Your task to perform on an android device: turn off translation in the chrome app Image 0: 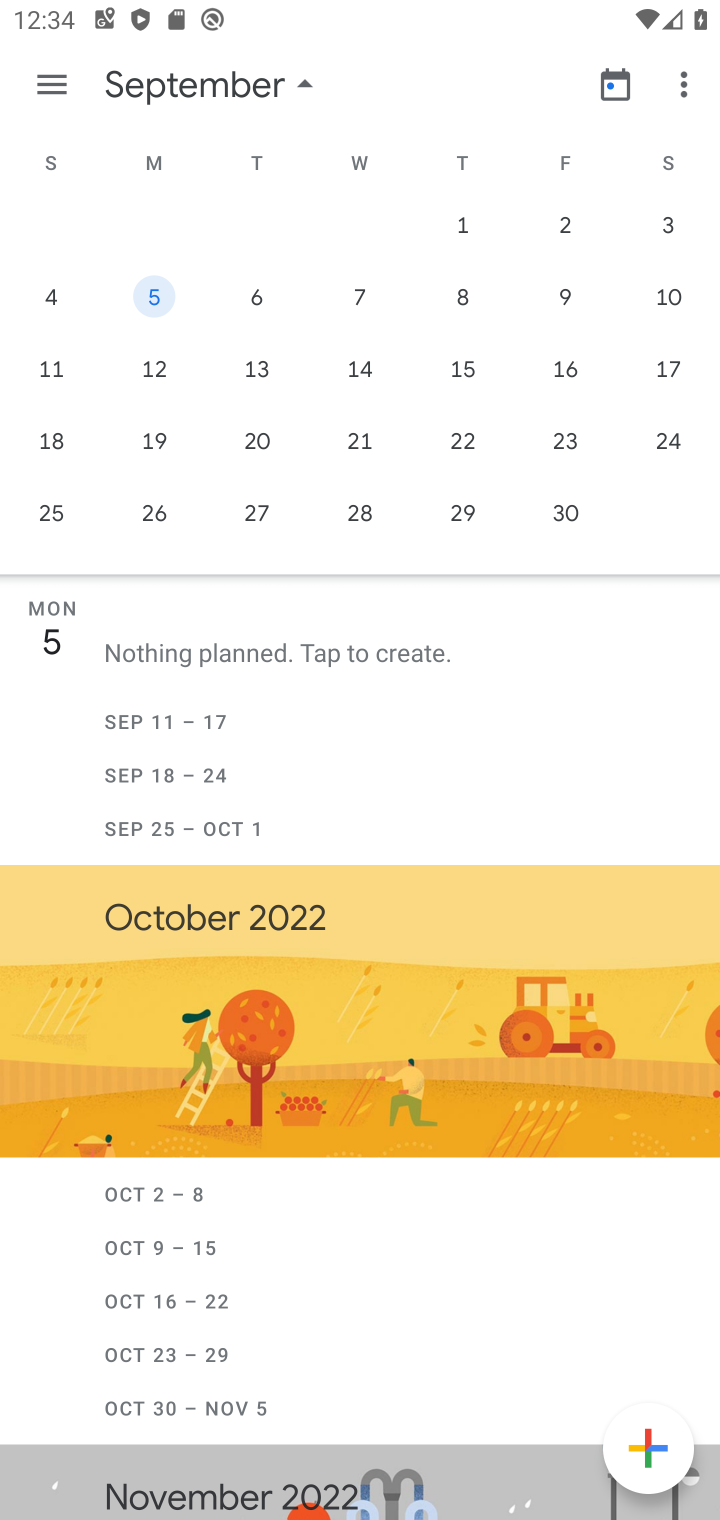
Step 0: press back button
Your task to perform on an android device: turn off translation in the chrome app Image 1: 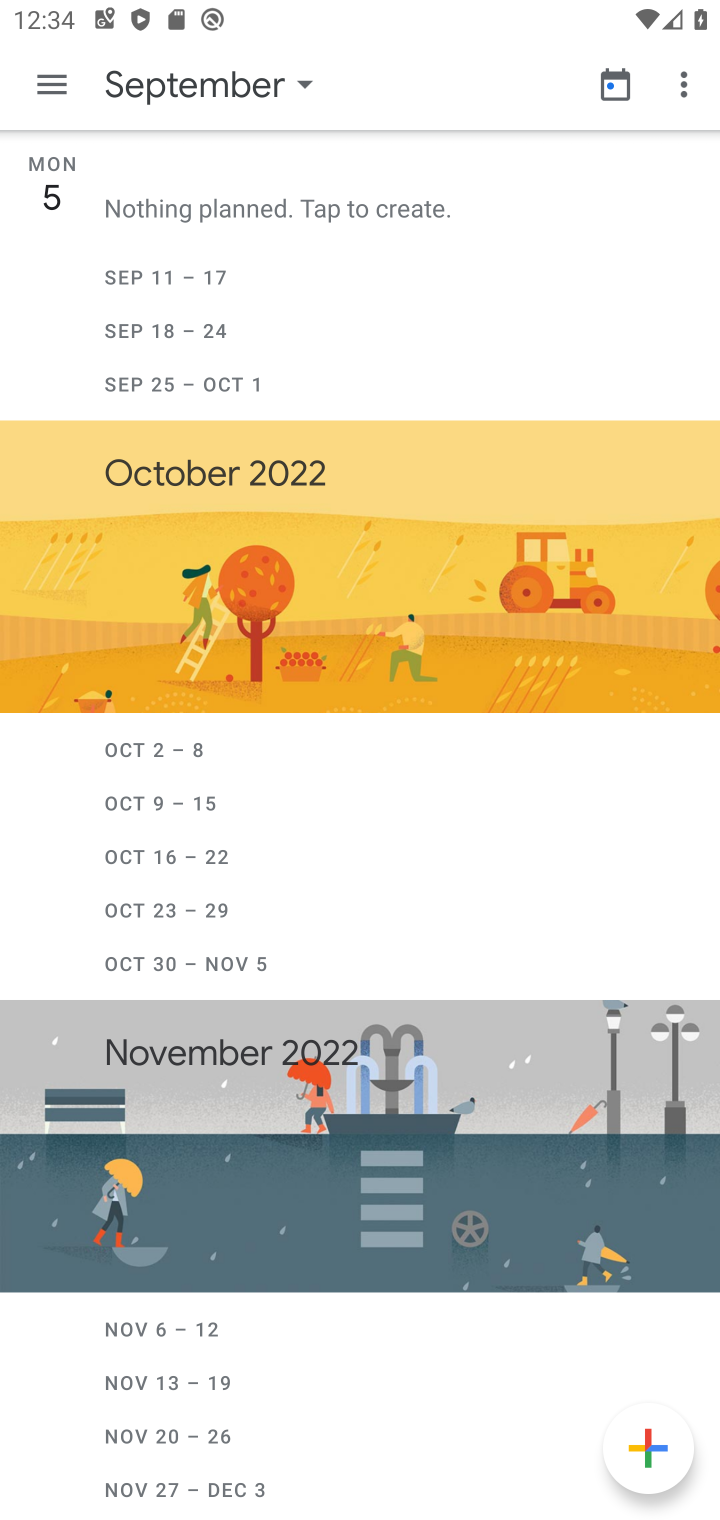
Step 1: press back button
Your task to perform on an android device: turn off translation in the chrome app Image 2: 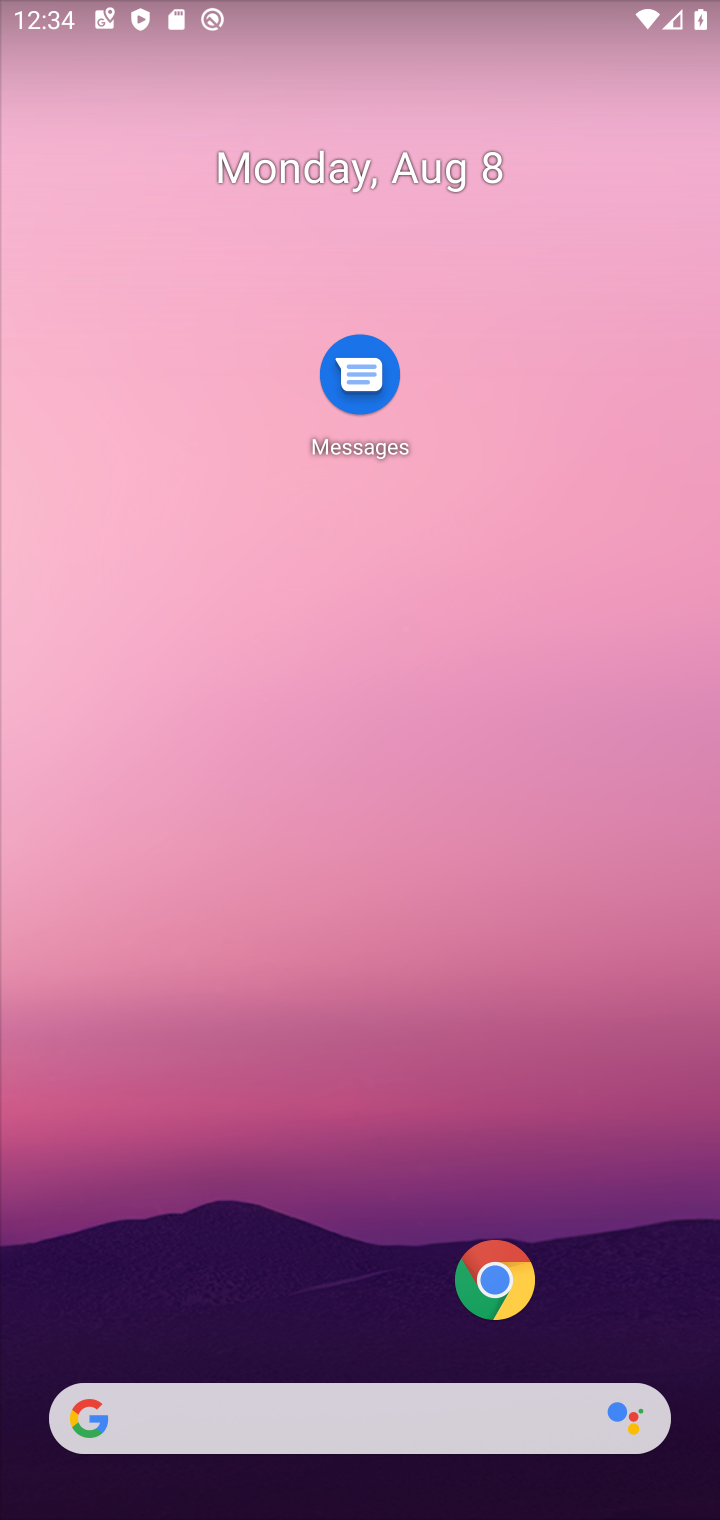
Step 2: click (493, 1295)
Your task to perform on an android device: turn off translation in the chrome app Image 3: 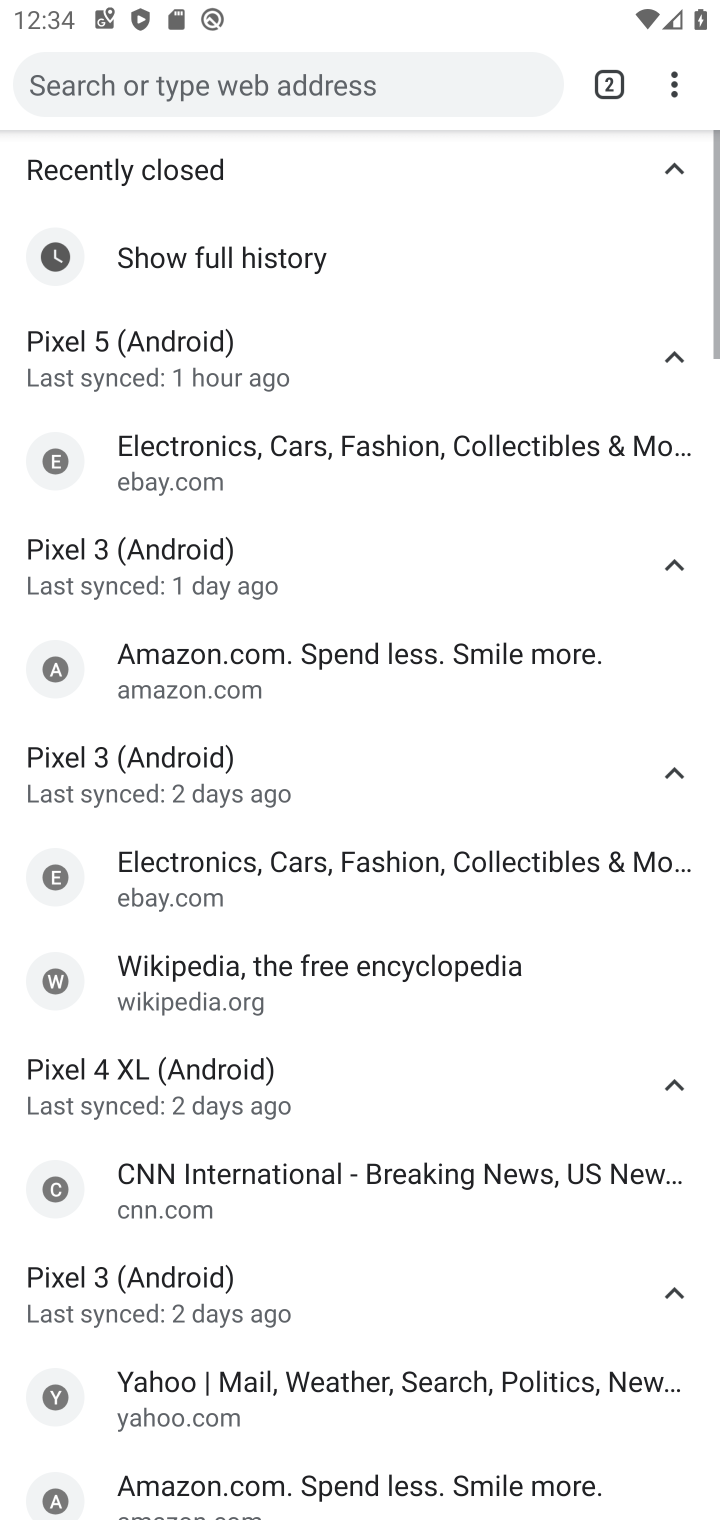
Step 3: drag from (659, 78) to (399, 708)
Your task to perform on an android device: turn off translation in the chrome app Image 4: 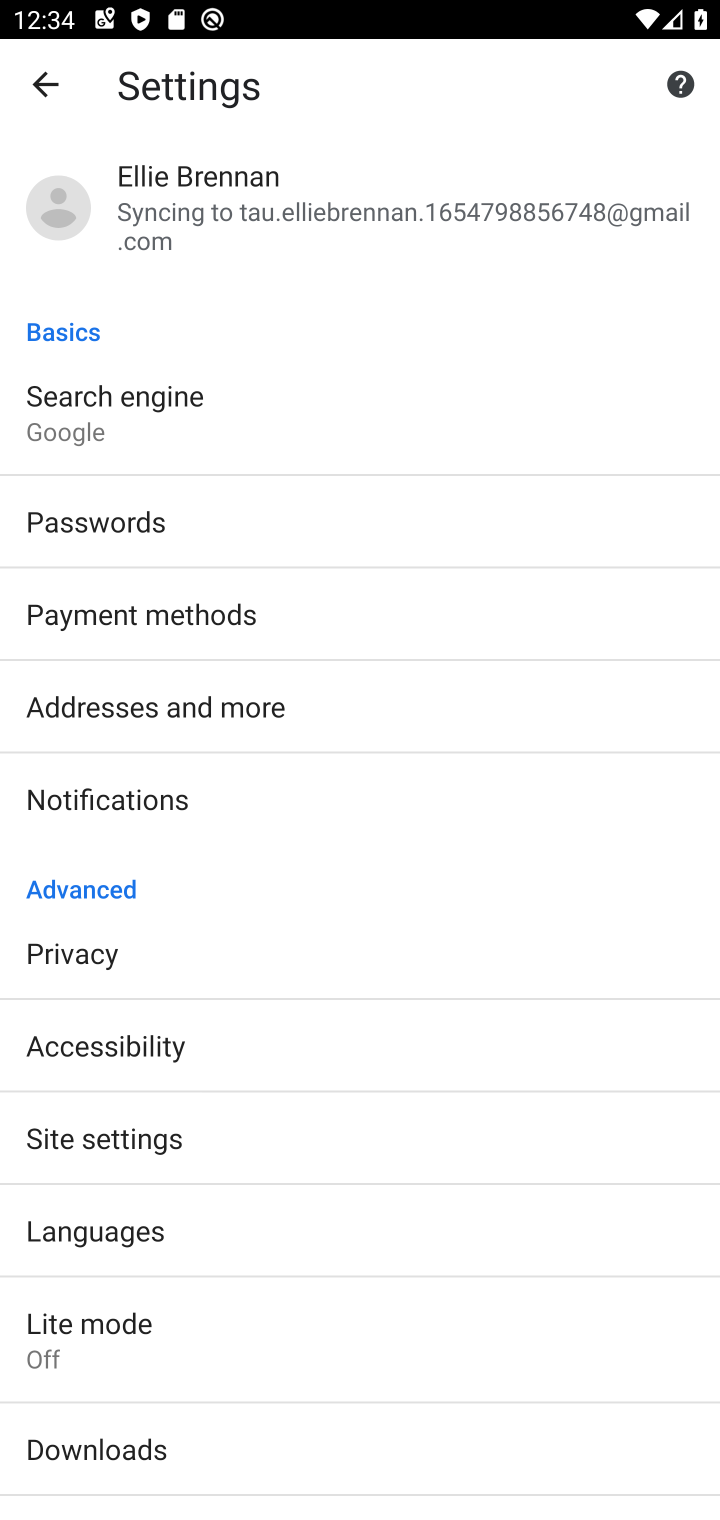
Step 4: click (111, 1240)
Your task to perform on an android device: turn off translation in the chrome app Image 5: 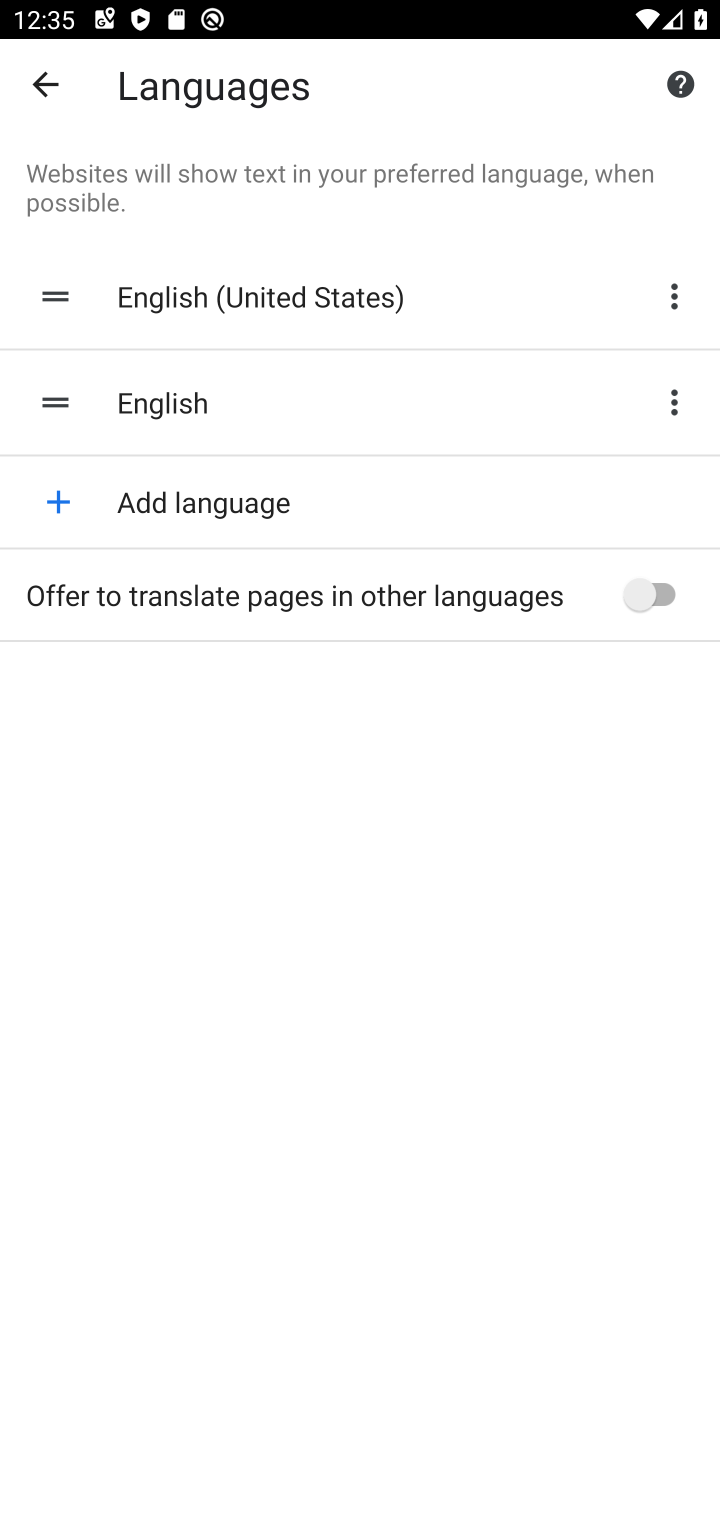
Step 5: task complete